Your task to perform on an android device: turn on wifi Image 0: 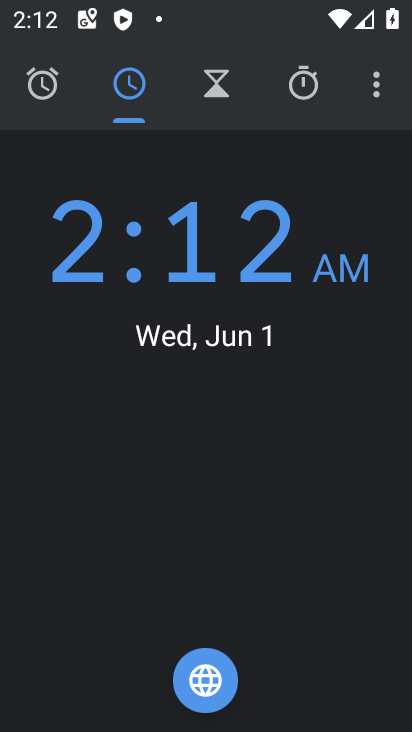
Step 0: press home button
Your task to perform on an android device: turn on wifi Image 1: 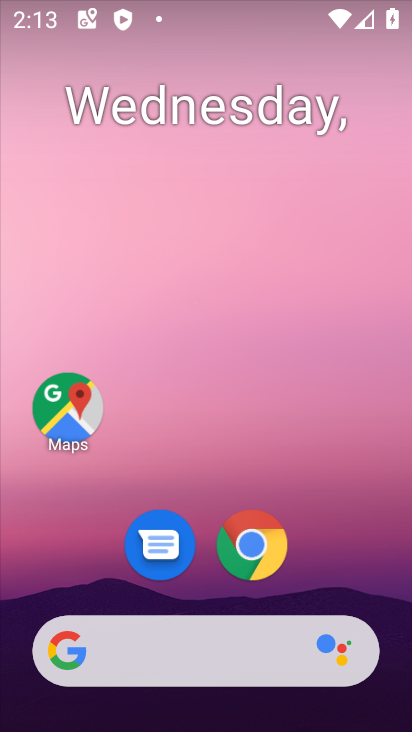
Step 1: drag from (362, 569) to (326, 148)
Your task to perform on an android device: turn on wifi Image 2: 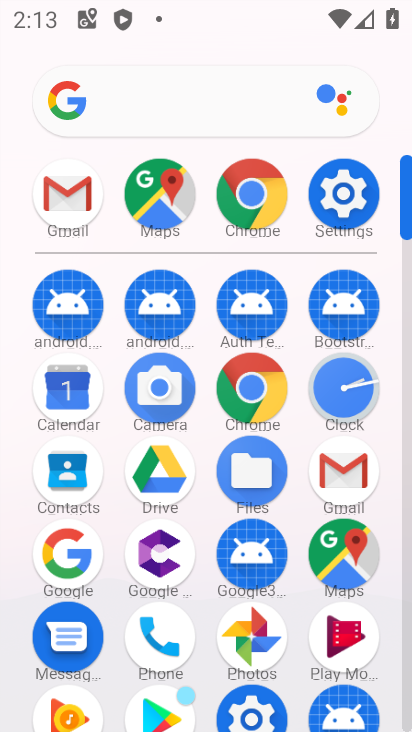
Step 2: click (337, 189)
Your task to perform on an android device: turn on wifi Image 3: 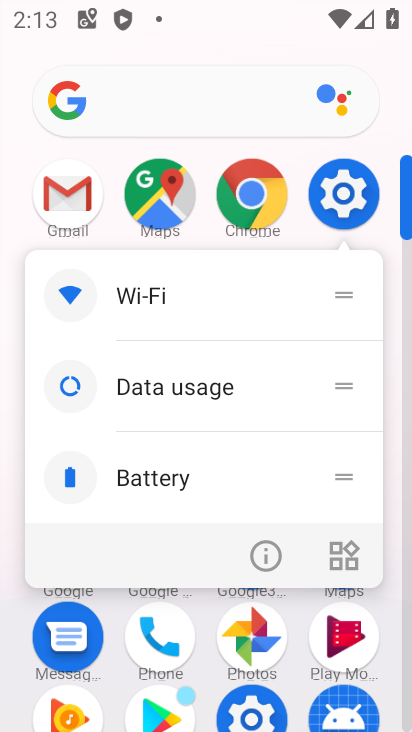
Step 3: click (287, 156)
Your task to perform on an android device: turn on wifi Image 4: 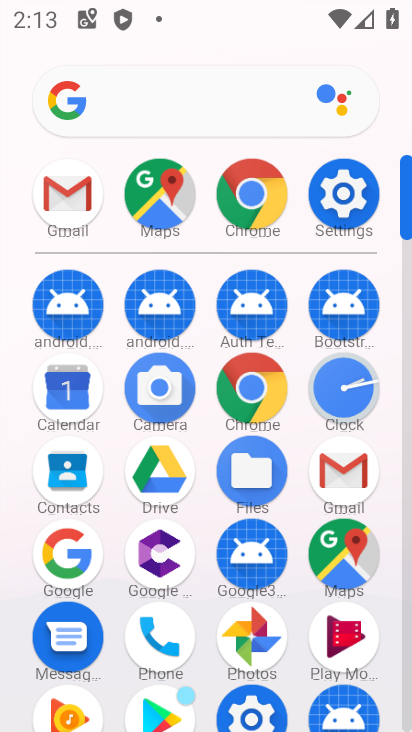
Step 4: click (344, 193)
Your task to perform on an android device: turn on wifi Image 5: 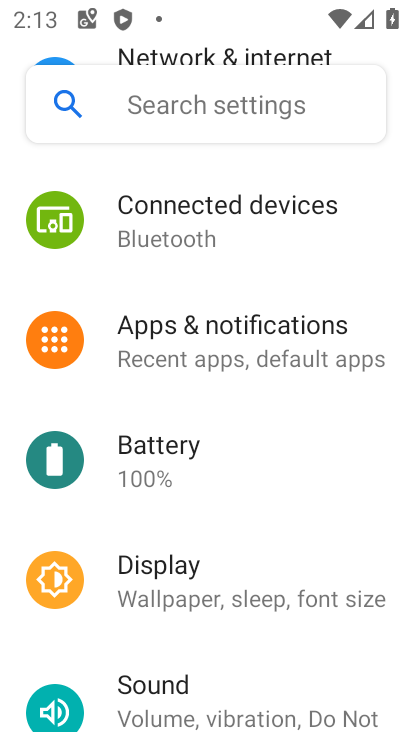
Step 5: drag from (217, 237) to (260, 703)
Your task to perform on an android device: turn on wifi Image 6: 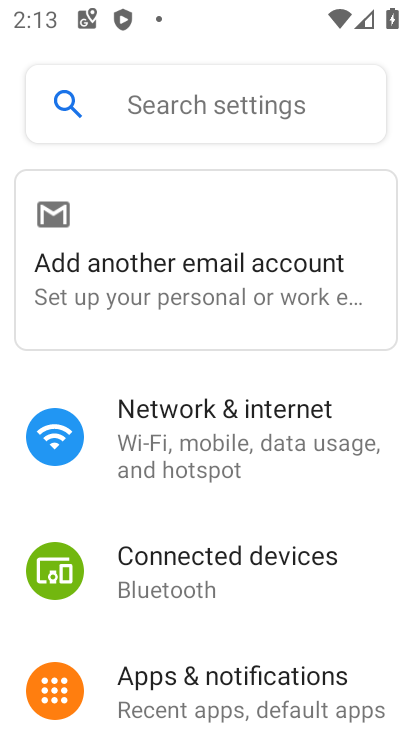
Step 6: click (214, 421)
Your task to perform on an android device: turn on wifi Image 7: 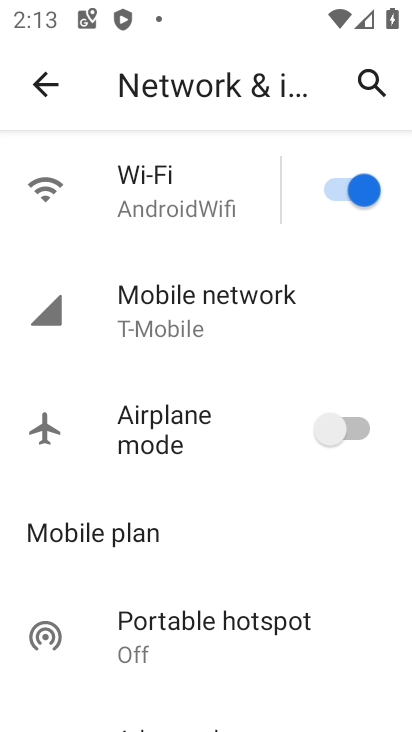
Step 7: click (186, 204)
Your task to perform on an android device: turn on wifi Image 8: 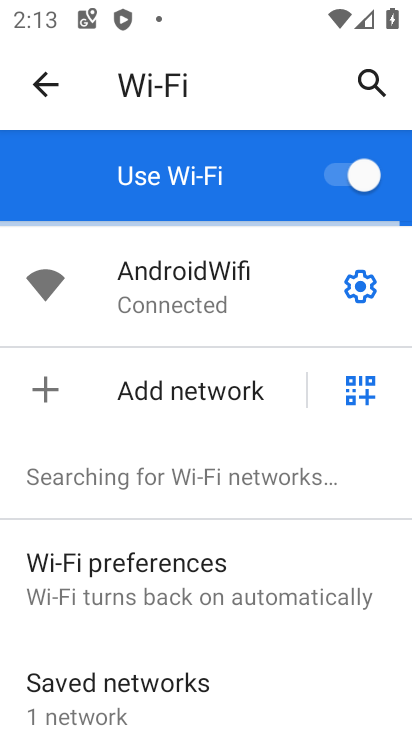
Step 8: task complete